Your task to perform on an android device: Go to calendar. Show me events next week Image 0: 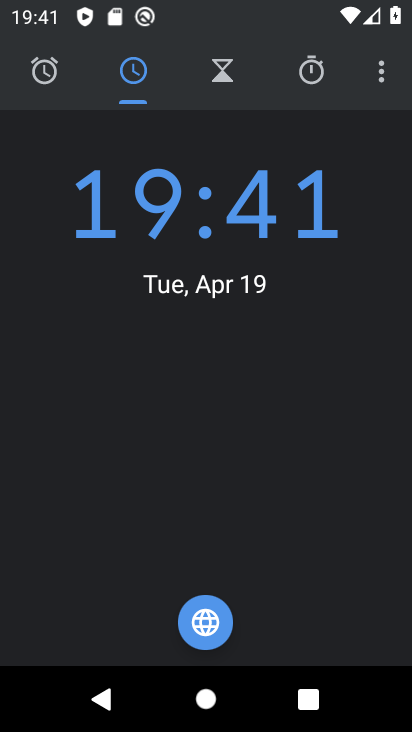
Step 0: press home button
Your task to perform on an android device: Go to calendar. Show me events next week Image 1: 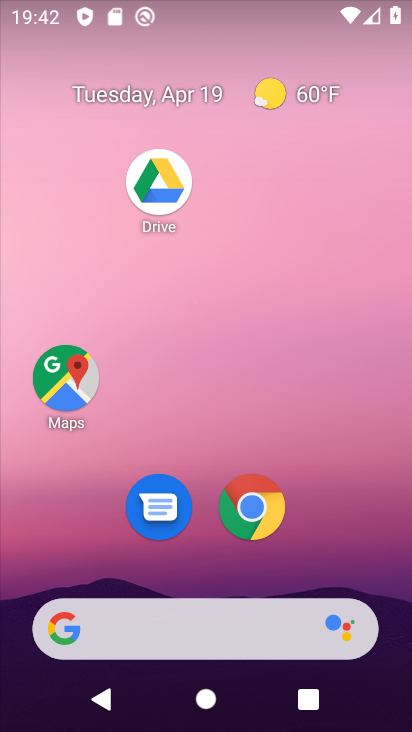
Step 1: drag from (355, 545) to (316, 131)
Your task to perform on an android device: Go to calendar. Show me events next week Image 2: 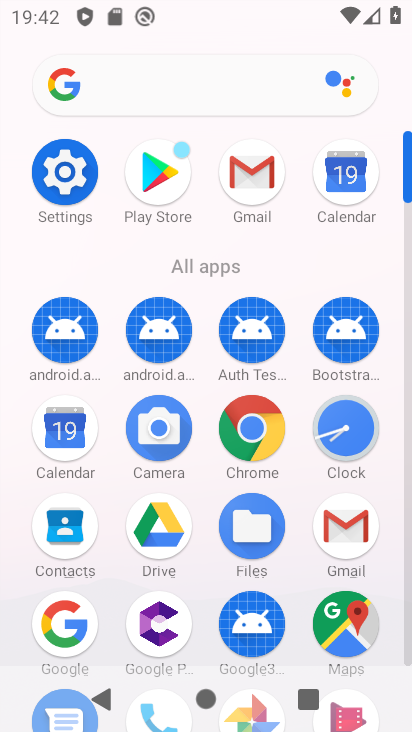
Step 2: click (339, 171)
Your task to perform on an android device: Go to calendar. Show me events next week Image 3: 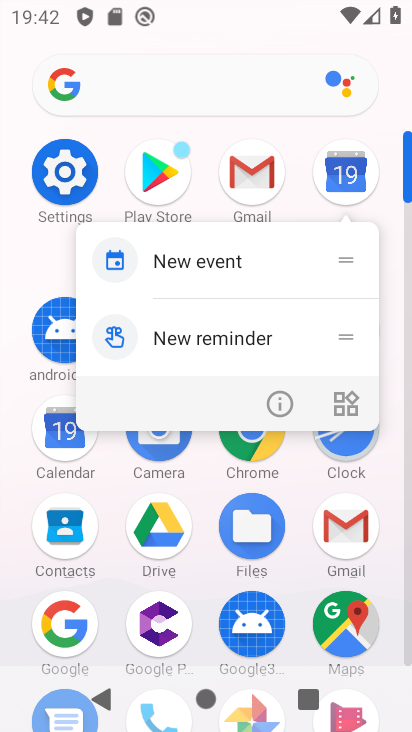
Step 3: click (339, 171)
Your task to perform on an android device: Go to calendar. Show me events next week Image 4: 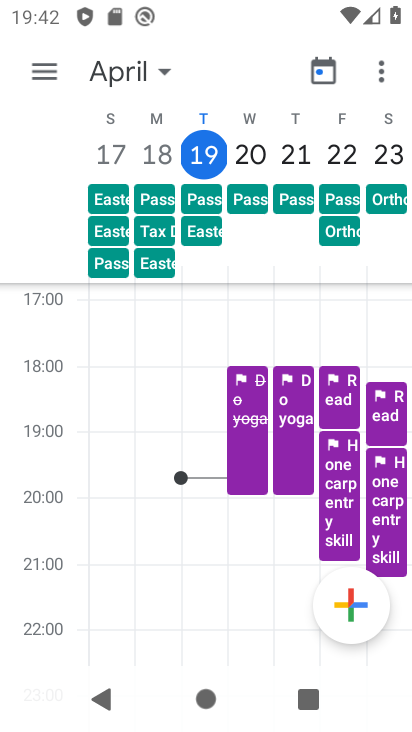
Step 4: task complete